Your task to perform on an android device: Search for sushi restaurants on Maps Image 0: 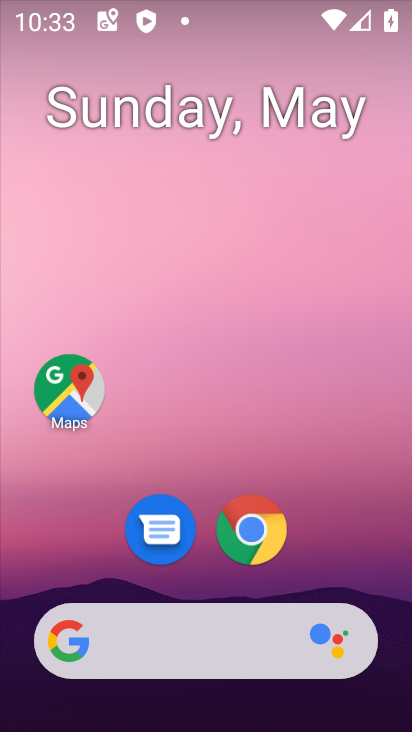
Step 0: drag from (196, 638) to (140, 25)
Your task to perform on an android device: Search for sushi restaurants on Maps Image 1: 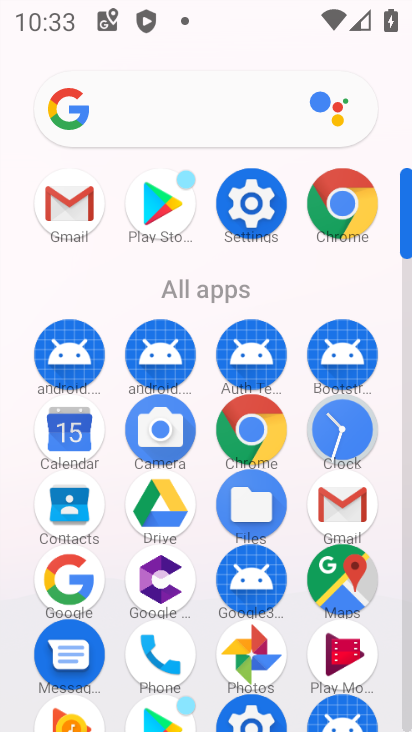
Step 1: click (349, 571)
Your task to perform on an android device: Search for sushi restaurants on Maps Image 2: 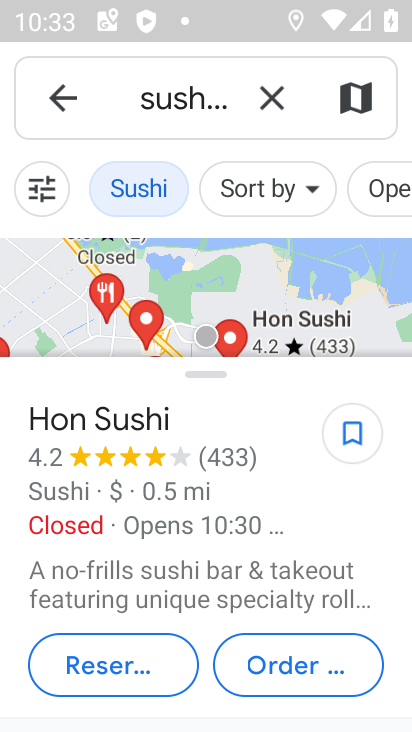
Step 2: task complete